Your task to perform on an android device: open app "Life360: Find Family & Friends" Image 0: 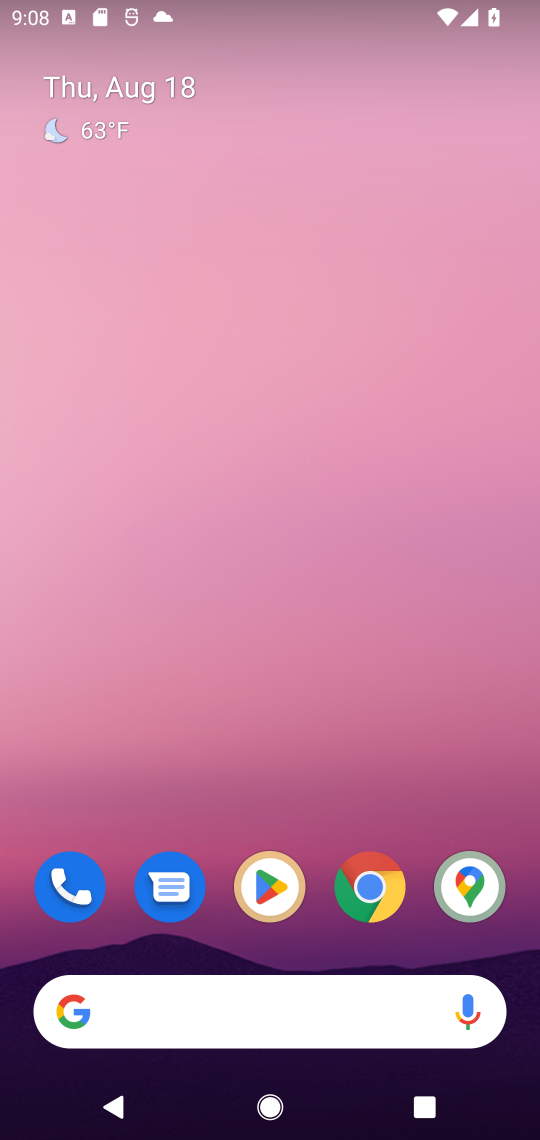
Step 0: click (263, 903)
Your task to perform on an android device: open app "Life360: Find Family & Friends" Image 1: 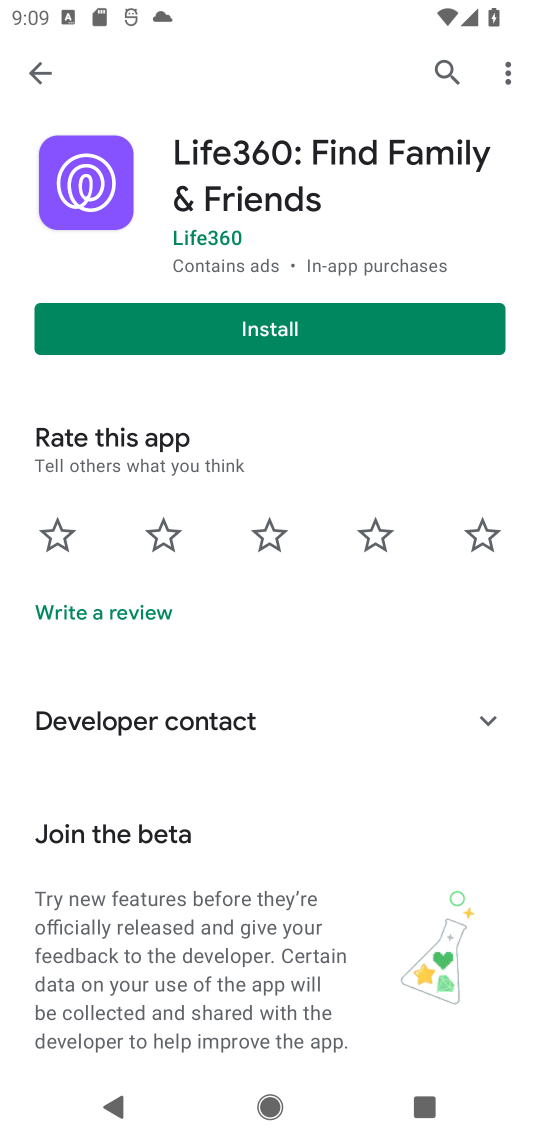
Step 1: click (448, 72)
Your task to perform on an android device: open app "Life360: Find Family & Friends" Image 2: 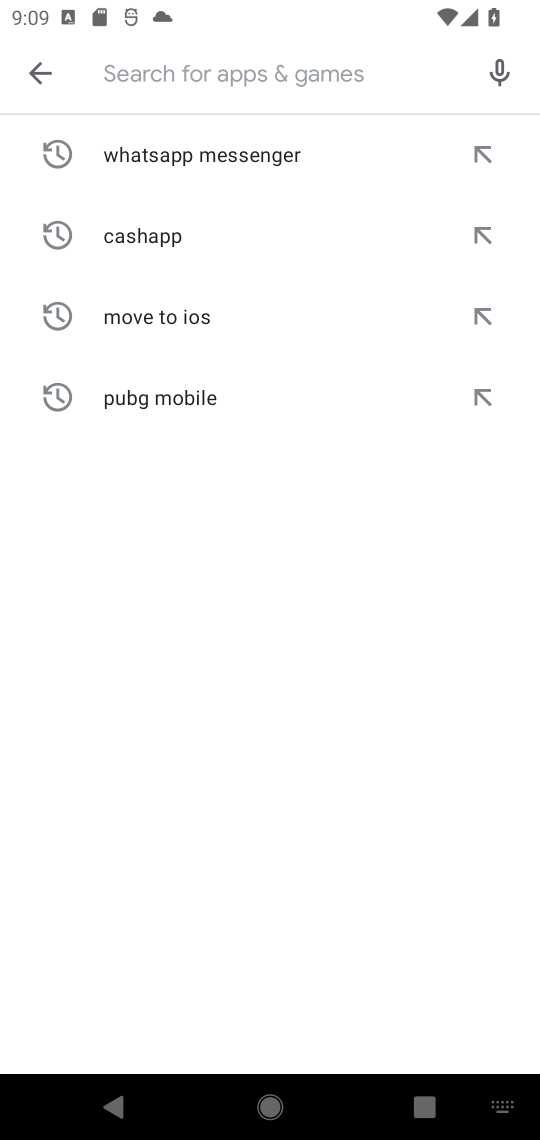
Step 2: type "Life360: Find Family & Friends"
Your task to perform on an android device: open app "Life360: Find Family & Friends" Image 3: 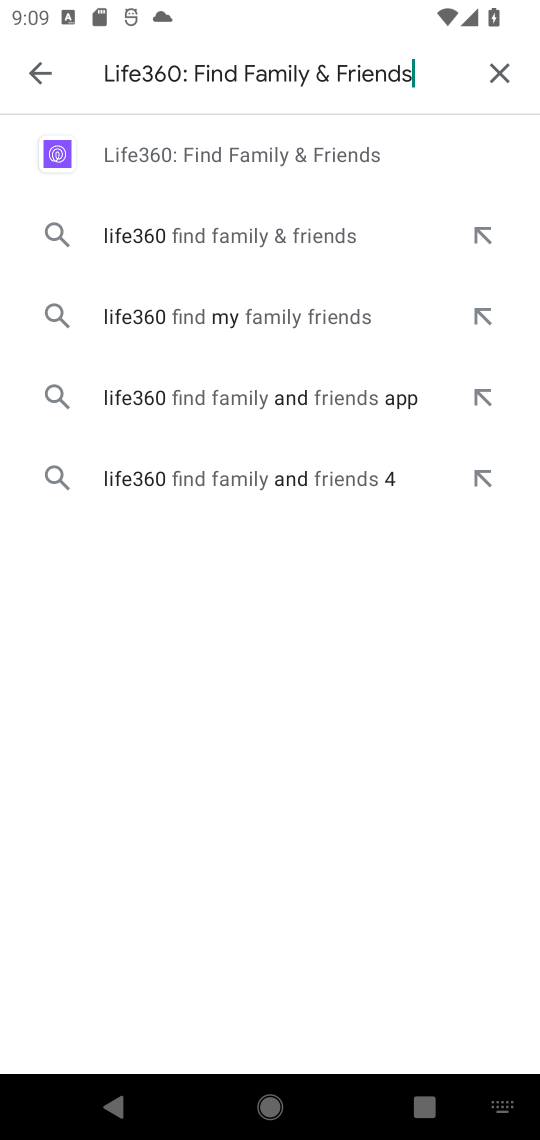
Step 3: click (234, 147)
Your task to perform on an android device: open app "Life360: Find Family & Friends" Image 4: 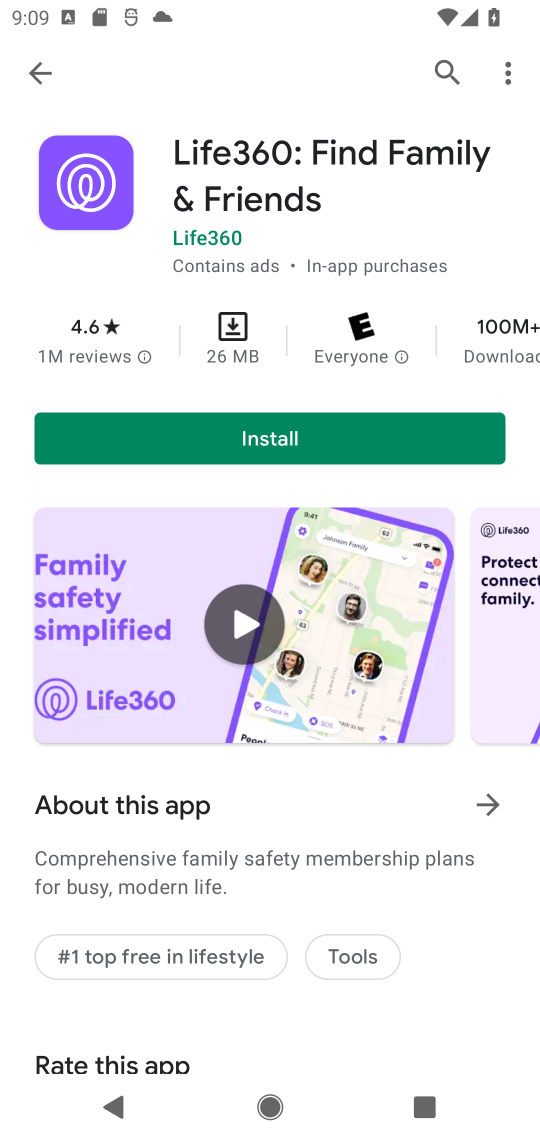
Step 4: click (320, 446)
Your task to perform on an android device: open app "Life360: Find Family & Friends" Image 5: 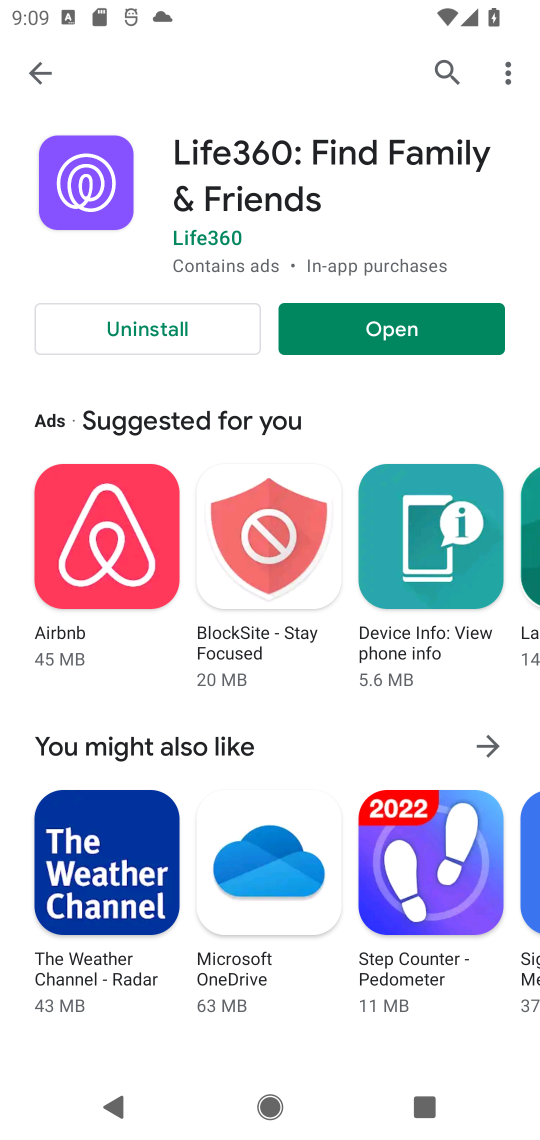
Step 5: click (397, 336)
Your task to perform on an android device: open app "Life360: Find Family & Friends" Image 6: 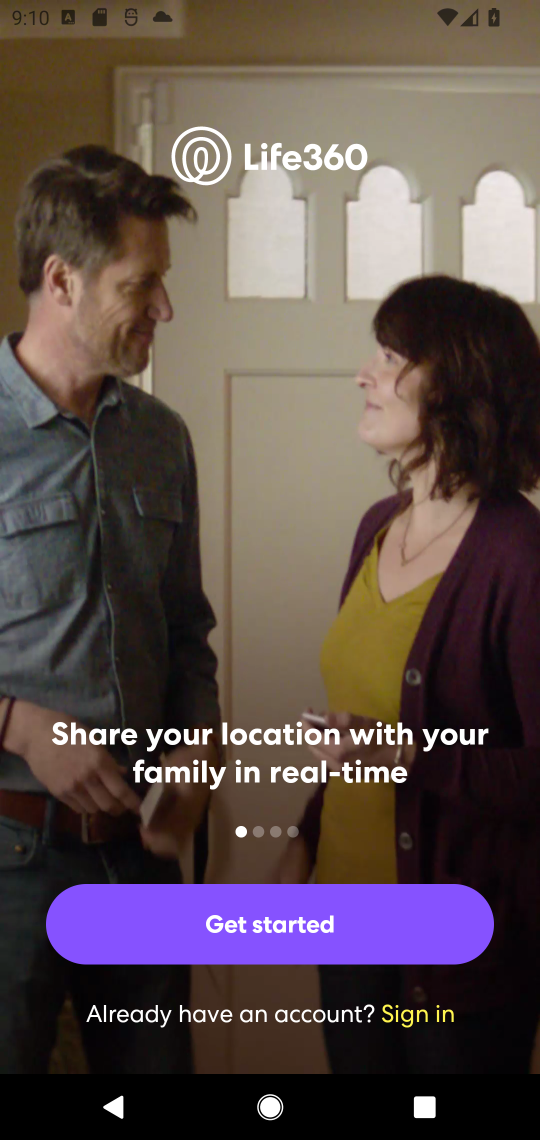
Step 6: task complete